Your task to perform on an android device: visit the assistant section in the google photos Image 0: 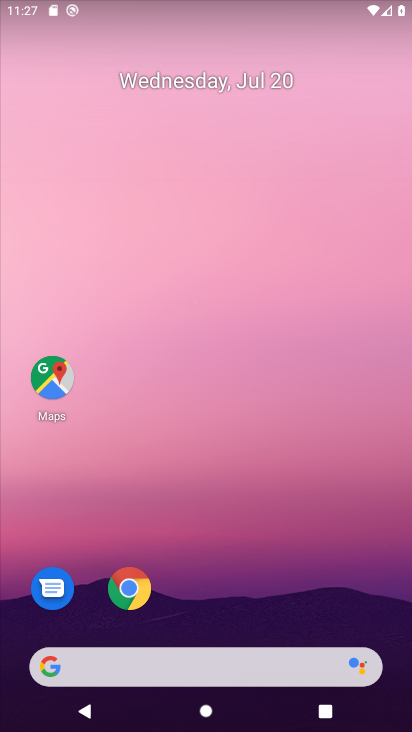
Step 0: press home button
Your task to perform on an android device: visit the assistant section in the google photos Image 1: 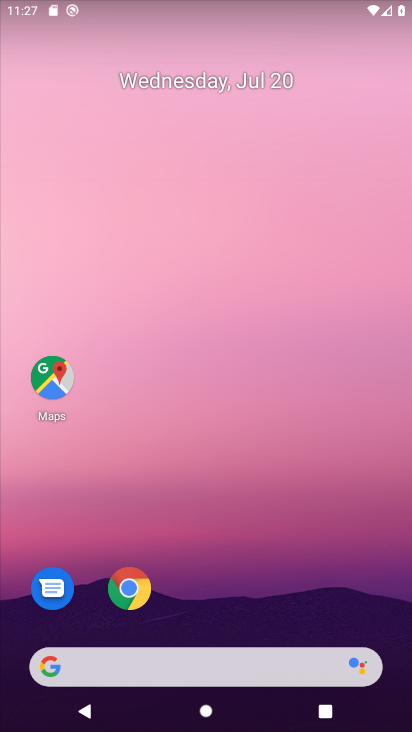
Step 1: drag from (196, 612) to (232, 32)
Your task to perform on an android device: visit the assistant section in the google photos Image 2: 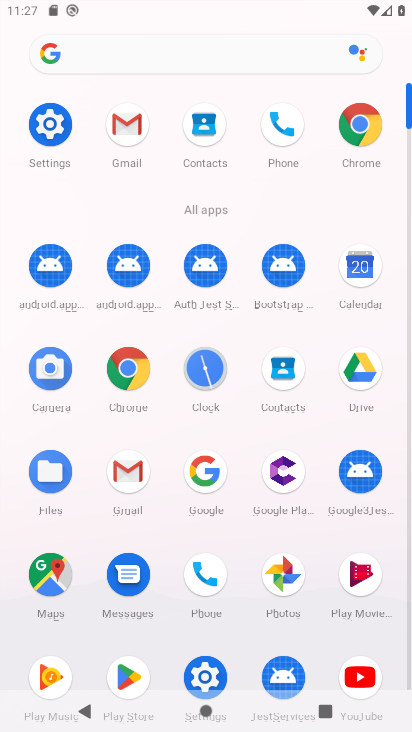
Step 2: click (279, 569)
Your task to perform on an android device: visit the assistant section in the google photos Image 3: 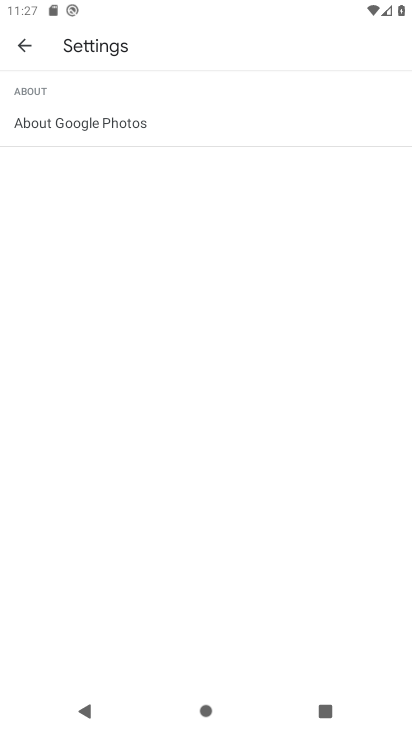
Step 3: click (25, 46)
Your task to perform on an android device: visit the assistant section in the google photos Image 4: 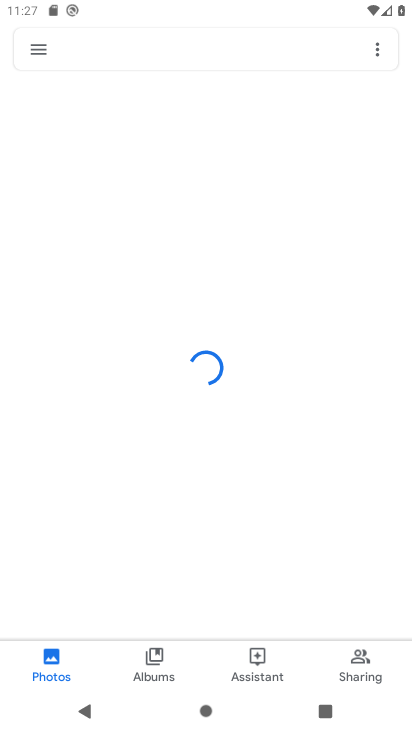
Step 4: click (252, 650)
Your task to perform on an android device: visit the assistant section in the google photos Image 5: 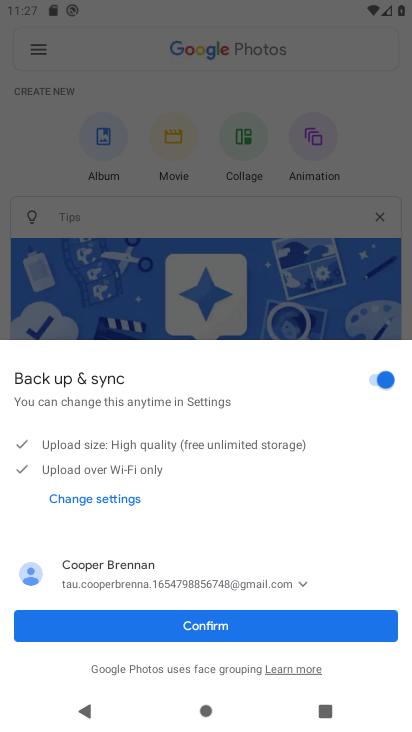
Step 5: click (222, 623)
Your task to perform on an android device: visit the assistant section in the google photos Image 6: 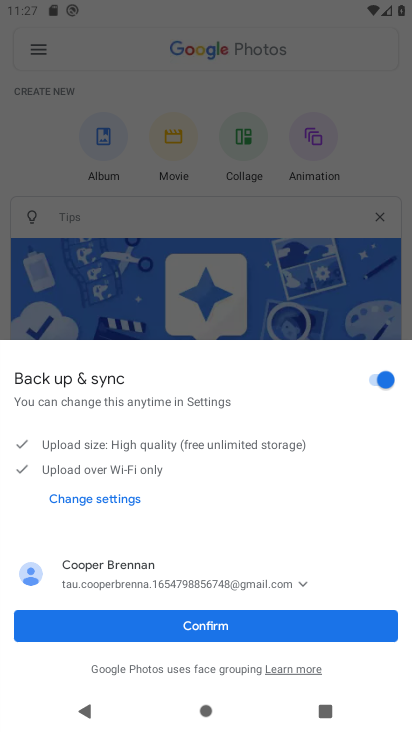
Step 6: click (123, 226)
Your task to perform on an android device: visit the assistant section in the google photos Image 7: 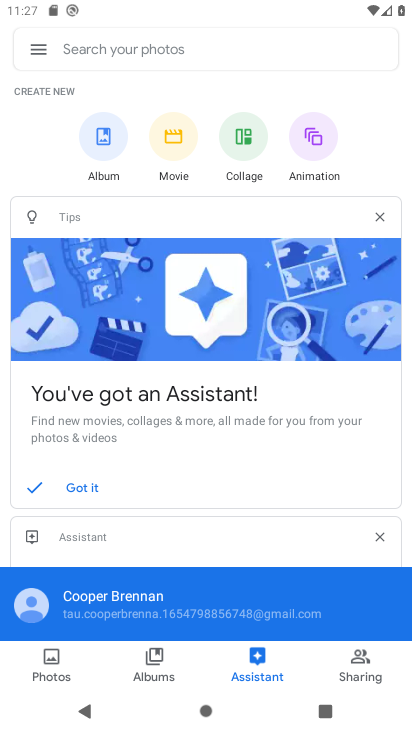
Step 7: task complete